Your task to perform on an android device: Toggle the flashlight Image 0: 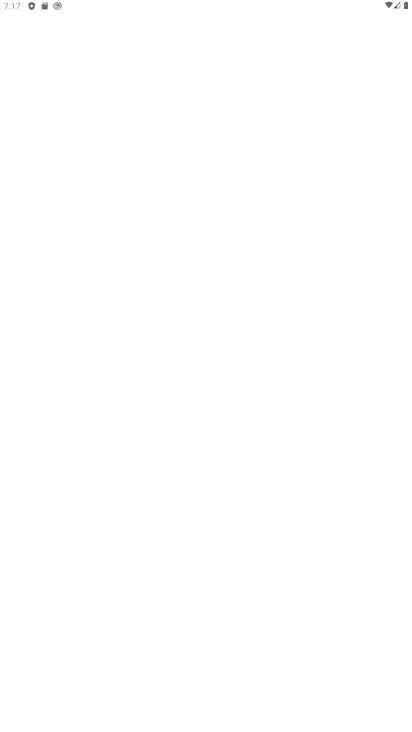
Step 0: drag from (380, 642) to (245, 115)
Your task to perform on an android device: Toggle the flashlight Image 1: 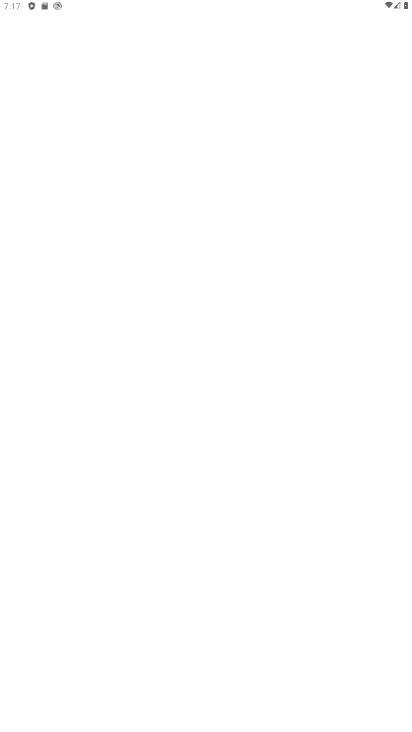
Step 1: task complete